Your task to perform on an android device: Go to accessibility settings Image 0: 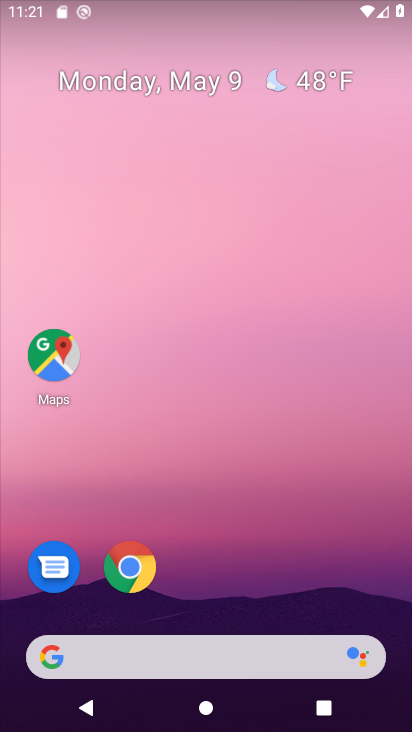
Step 0: drag from (253, 604) to (309, 208)
Your task to perform on an android device: Go to accessibility settings Image 1: 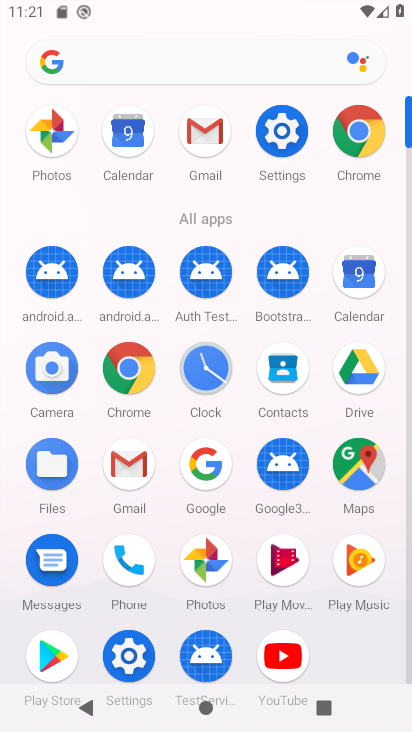
Step 1: click (284, 149)
Your task to perform on an android device: Go to accessibility settings Image 2: 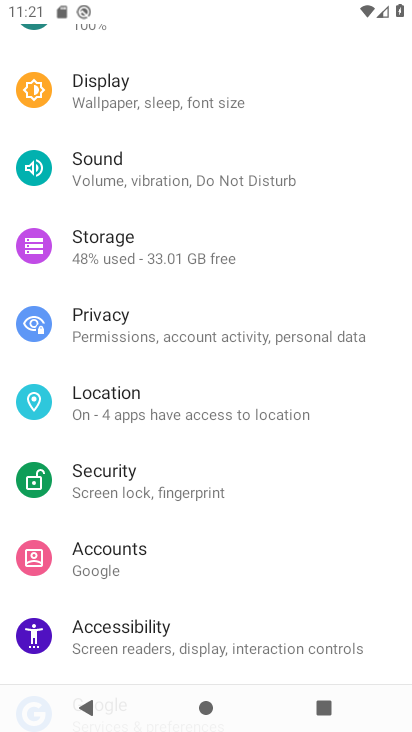
Step 2: click (128, 636)
Your task to perform on an android device: Go to accessibility settings Image 3: 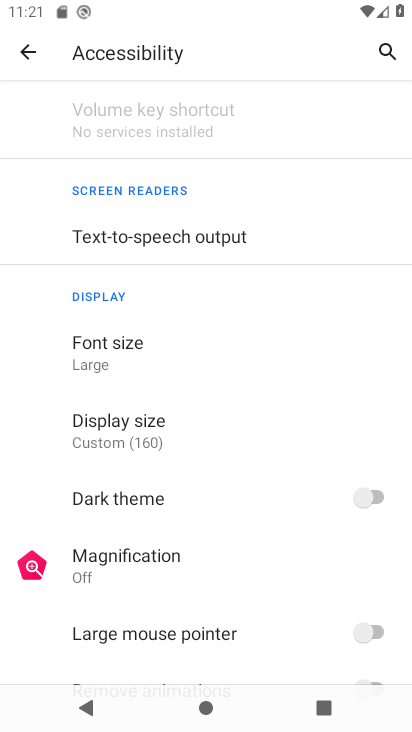
Step 3: task complete